Your task to perform on an android device: Empty the shopping cart on amazon.com. Add "macbook air" to the cart on amazon.com Image 0: 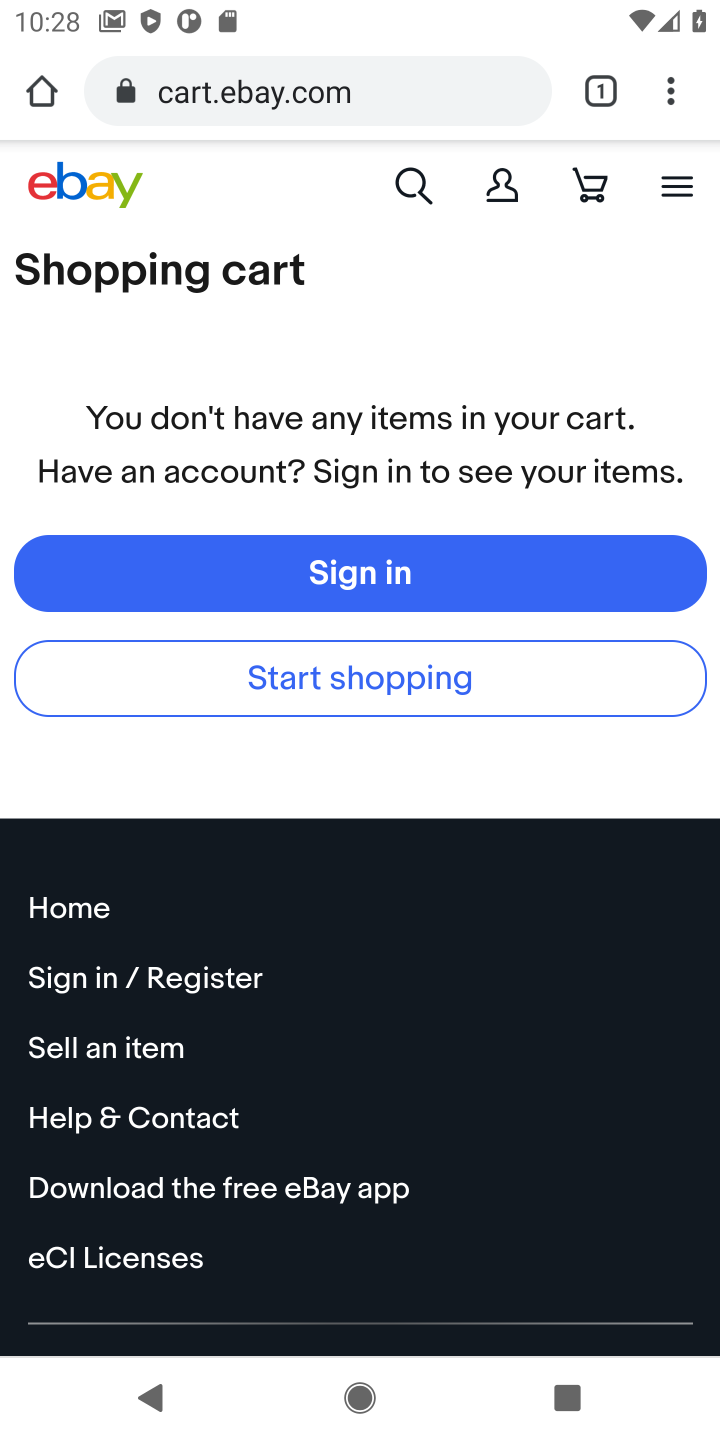
Step 0: press home button
Your task to perform on an android device: Empty the shopping cart on amazon.com. Add "macbook air" to the cart on amazon.com Image 1: 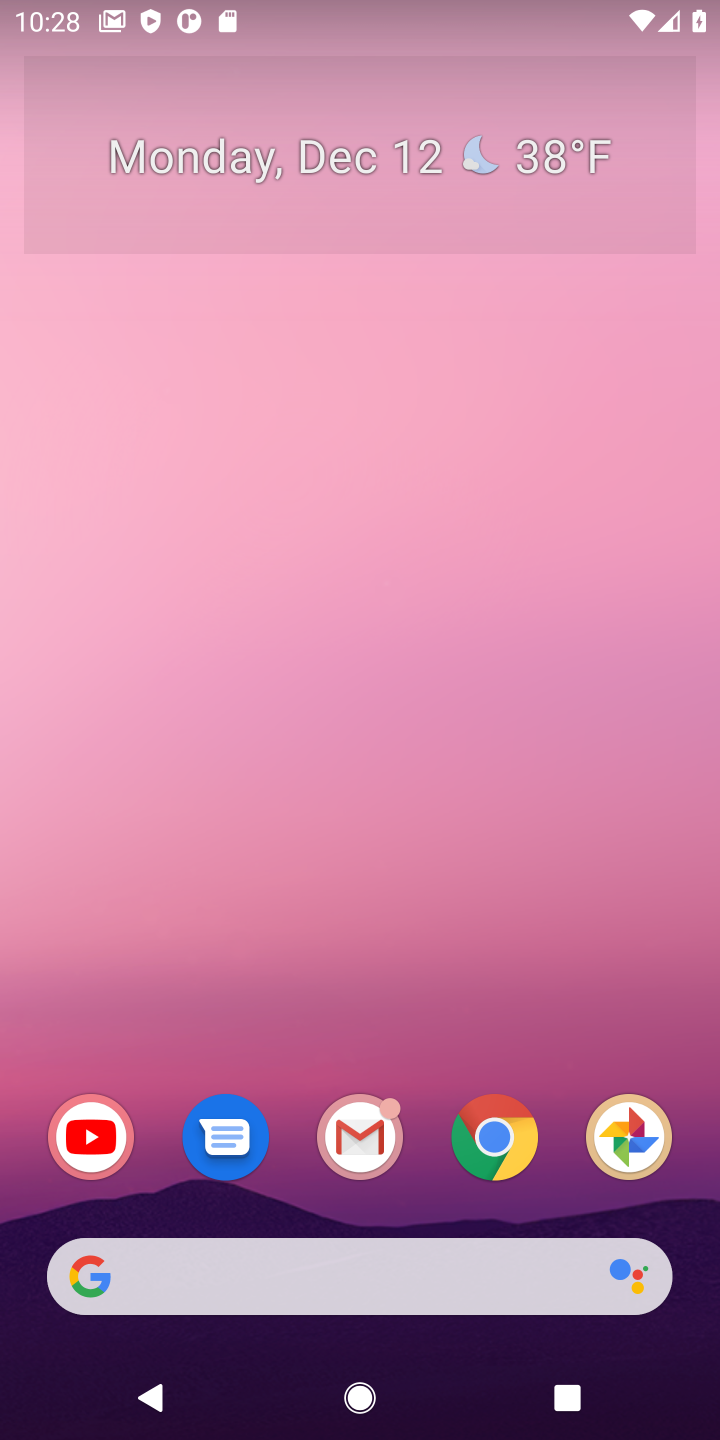
Step 1: click (455, 1255)
Your task to perform on an android device: Empty the shopping cart on amazon.com. Add "macbook air" to the cart on amazon.com Image 2: 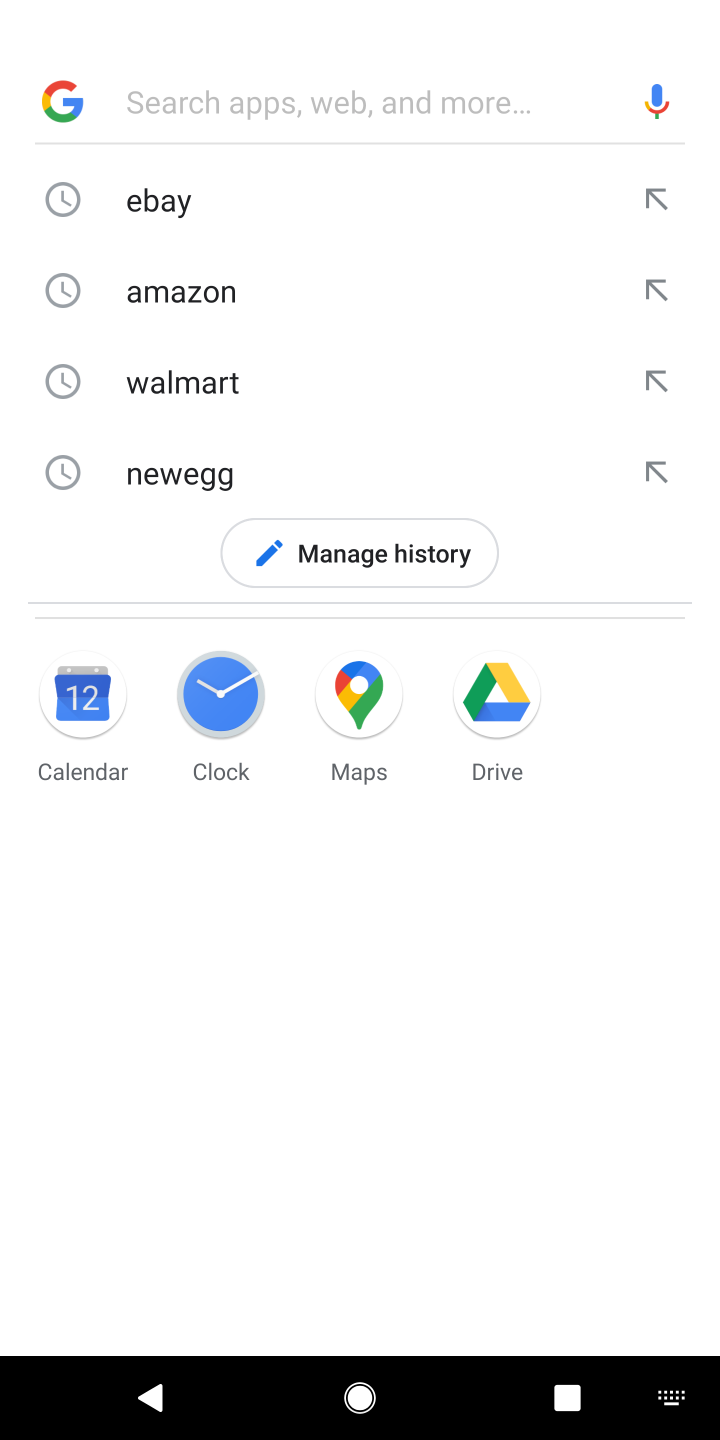
Step 2: click (303, 292)
Your task to perform on an android device: Empty the shopping cart on amazon.com. Add "macbook air" to the cart on amazon.com Image 3: 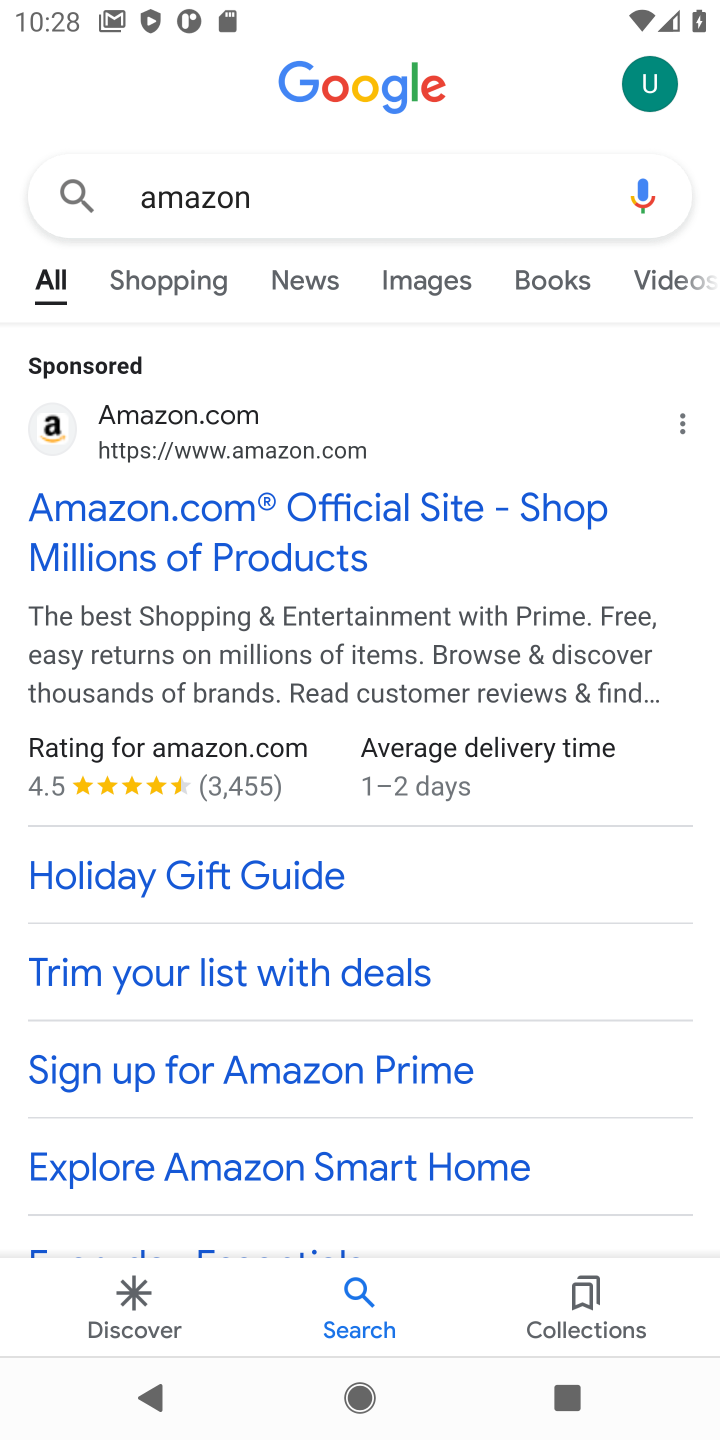
Step 3: click (266, 503)
Your task to perform on an android device: Empty the shopping cart on amazon.com. Add "macbook air" to the cart on amazon.com Image 4: 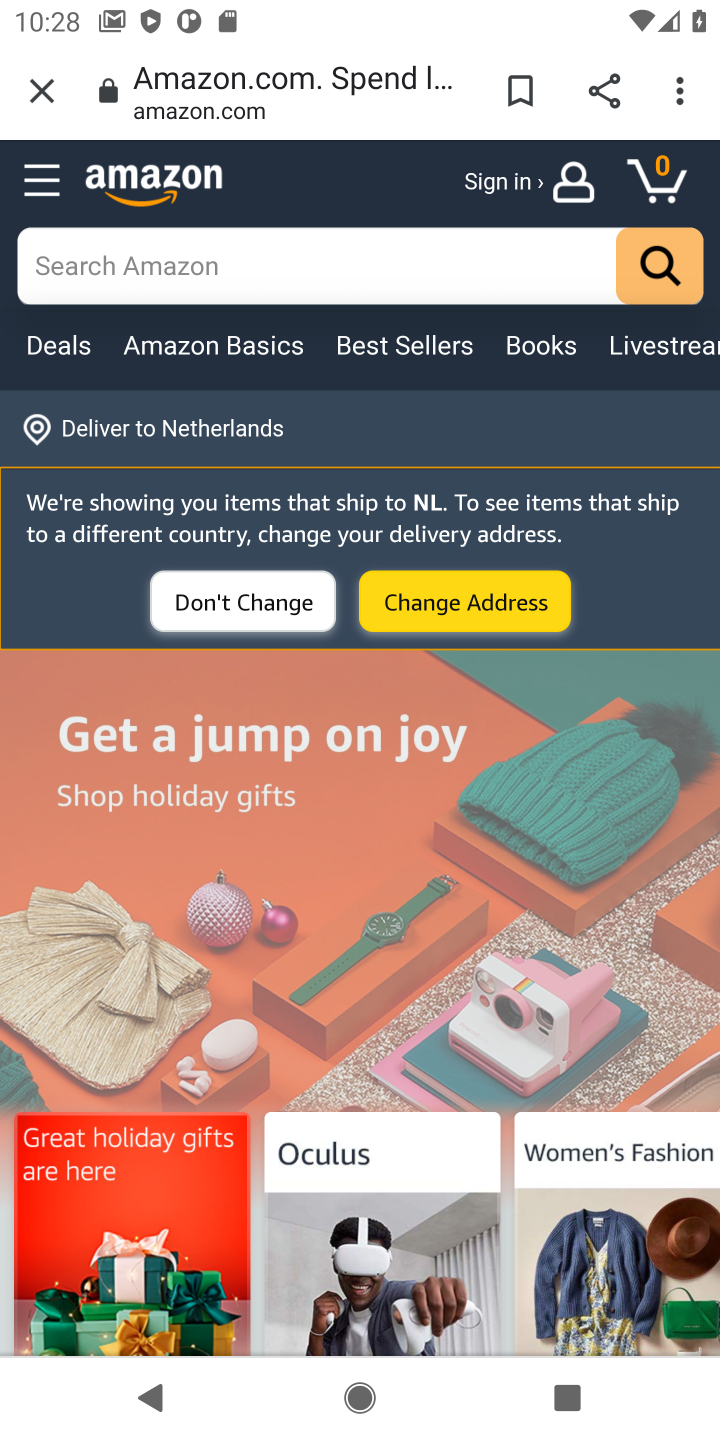
Step 4: click (178, 259)
Your task to perform on an android device: Empty the shopping cart on amazon.com. Add "macbook air" to the cart on amazon.com Image 5: 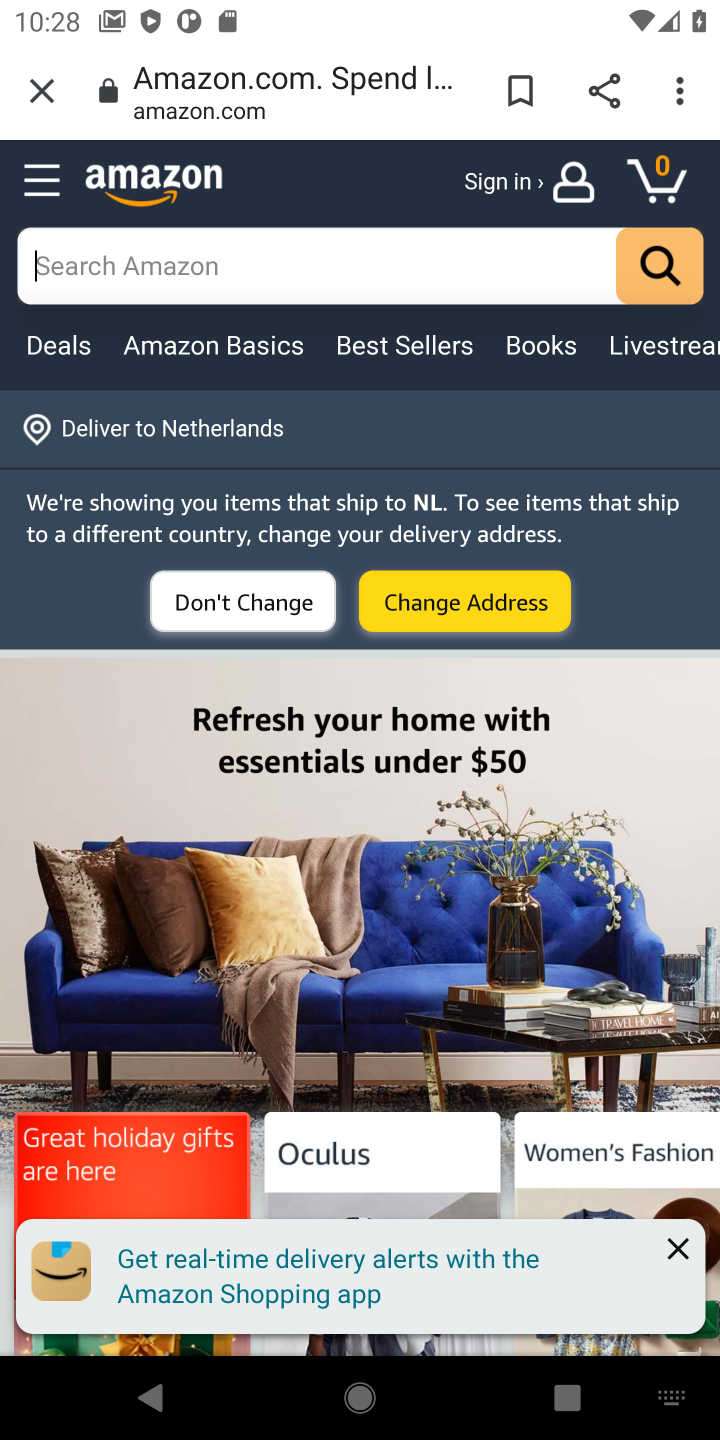
Step 5: type "macbook air"
Your task to perform on an android device: Empty the shopping cart on amazon.com. Add "macbook air" to the cart on amazon.com Image 6: 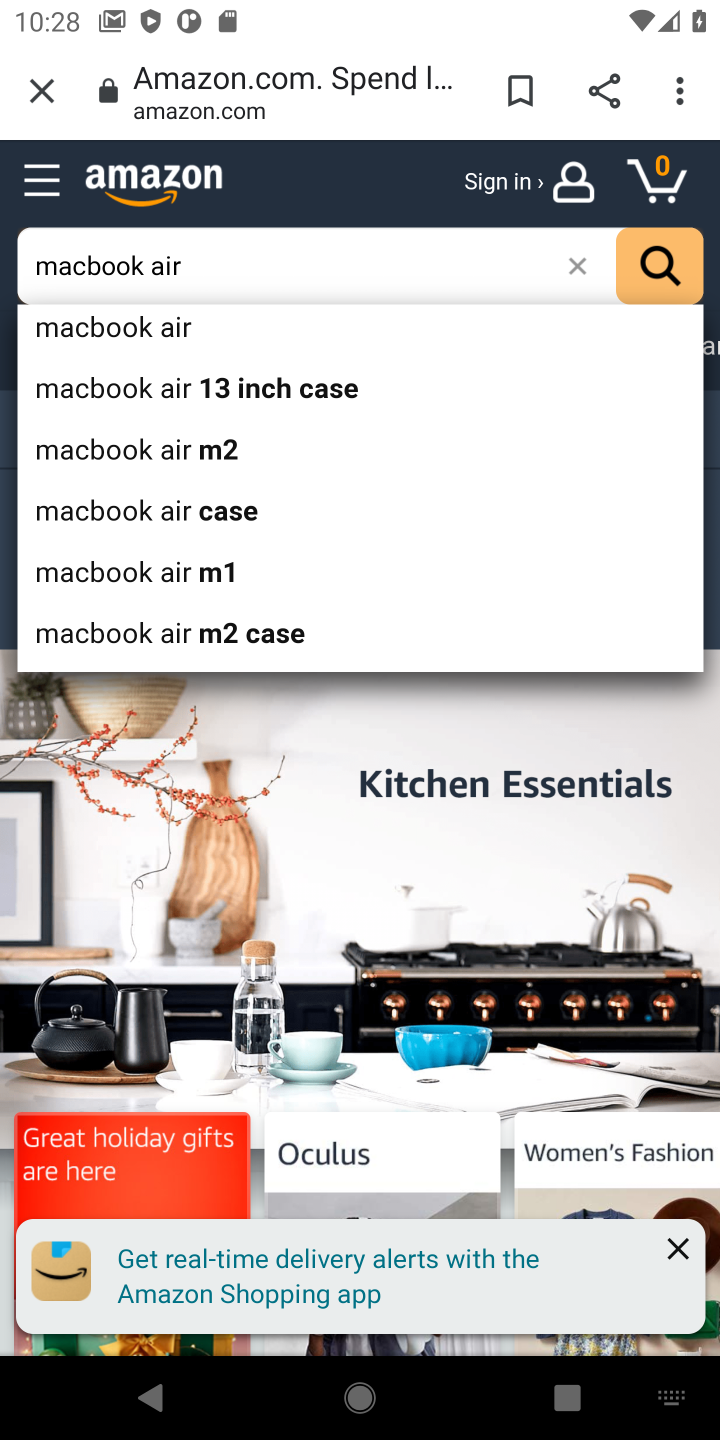
Step 6: click (642, 277)
Your task to perform on an android device: Empty the shopping cart on amazon.com. Add "macbook air" to the cart on amazon.com Image 7: 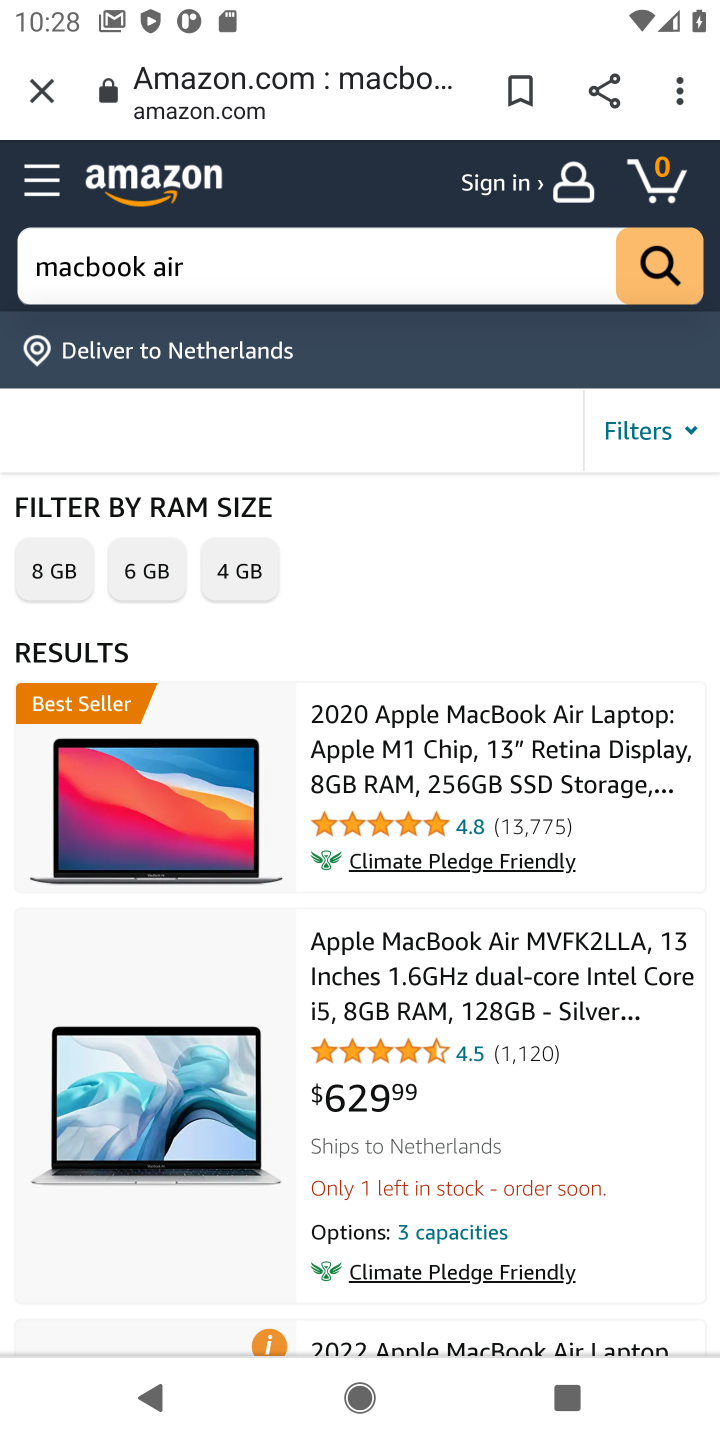
Step 7: click (531, 747)
Your task to perform on an android device: Empty the shopping cart on amazon.com. Add "macbook air" to the cart on amazon.com Image 8: 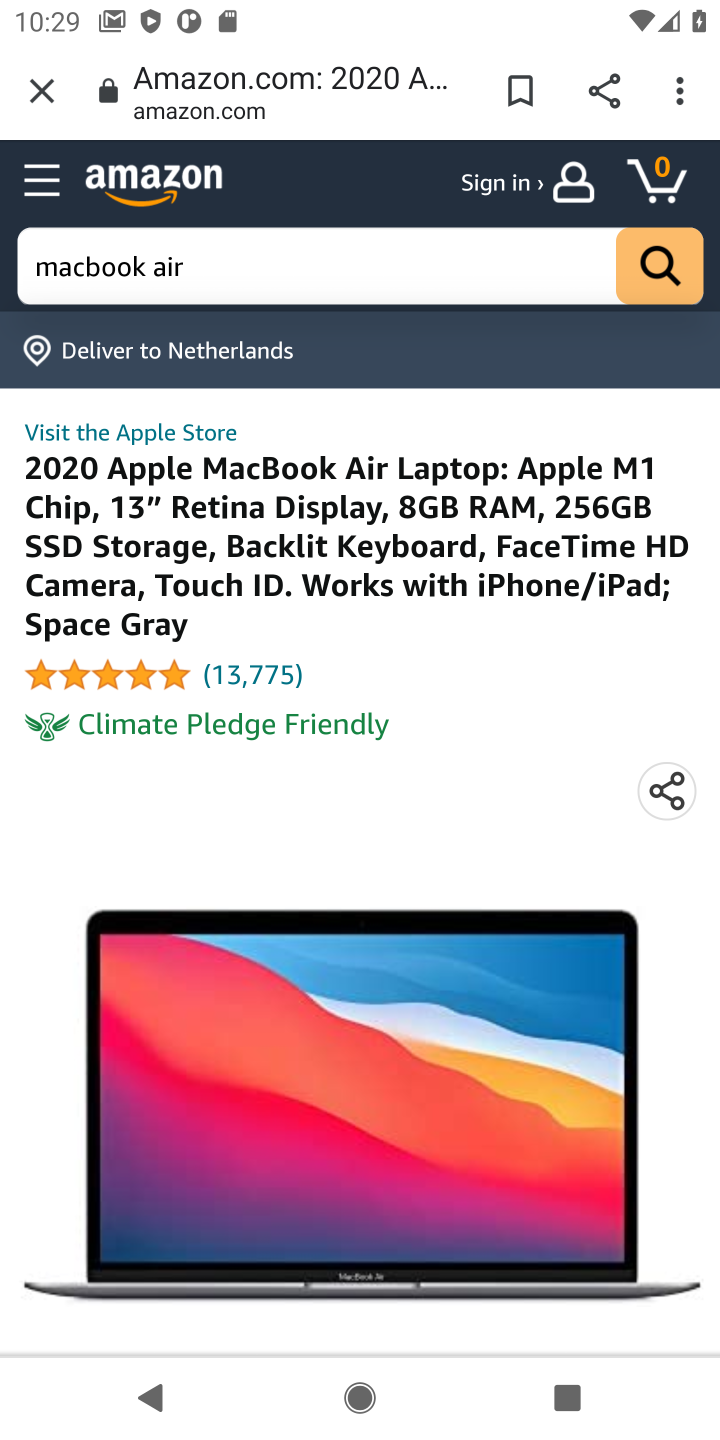
Step 8: task complete